Your task to perform on an android device: Open Youtube and go to "Your channel" Image 0: 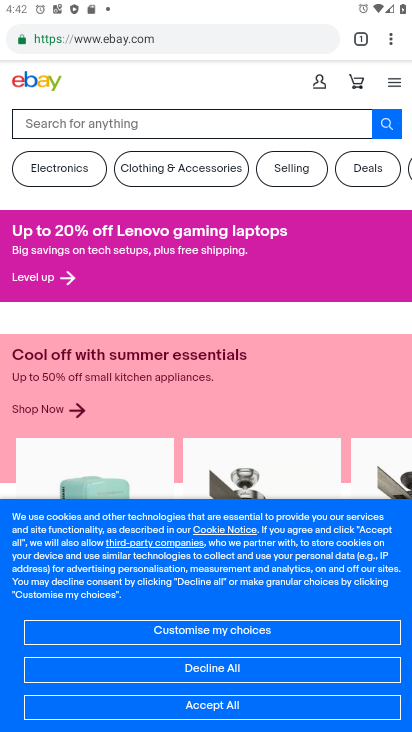
Step 0: press home button
Your task to perform on an android device: Open Youtube and go to "Your channel" Image 1: 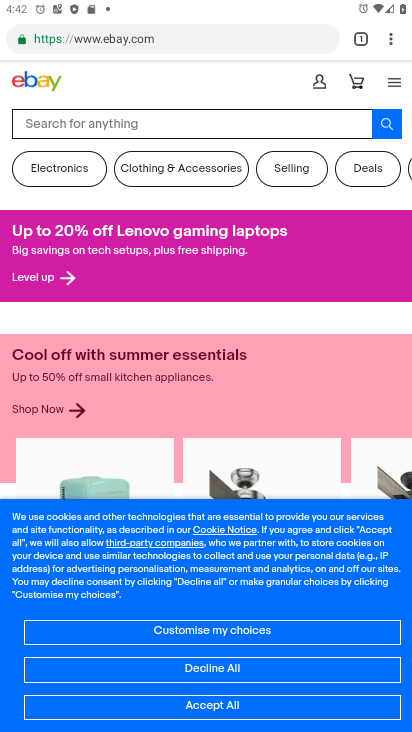
Step 1: drag from (215, 694) to (250, 25)
Your task to perform on an android device: Open Youtube and go to "Your channel" Image 2: 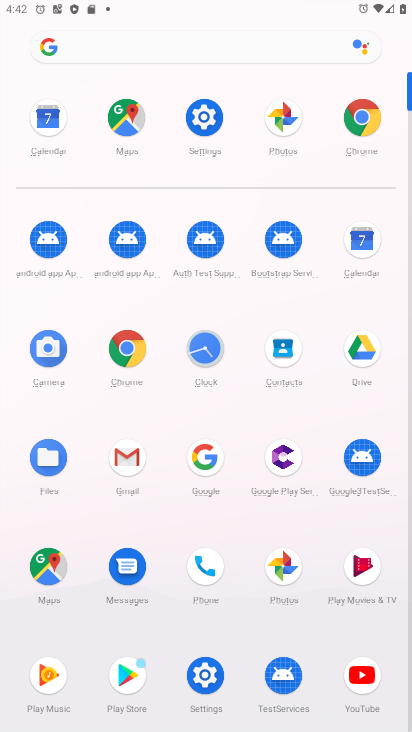
Step 2: click (342, 652)
Your task to perform on an android device: Open Youtube and go to "Your channel" Image 3: 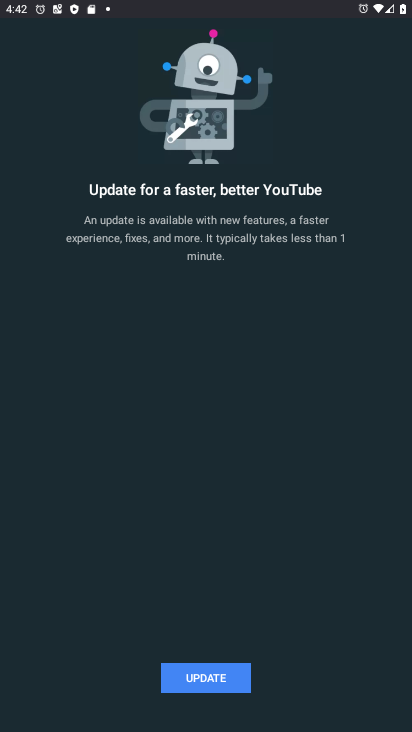
Step 3: click (195, 687)
Your task to perform on an android device: Open Youtube and go to "Your channel" Image 4: 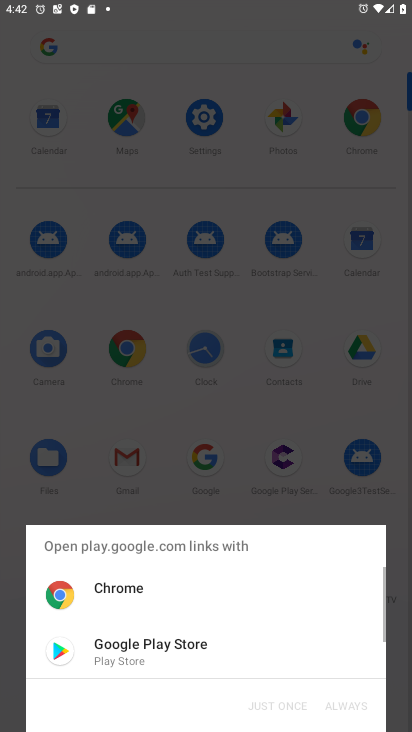
Step 4: click (166, 655)
Your task to perform on an android device: Open Youtube and go to "Your channel" Image 5: 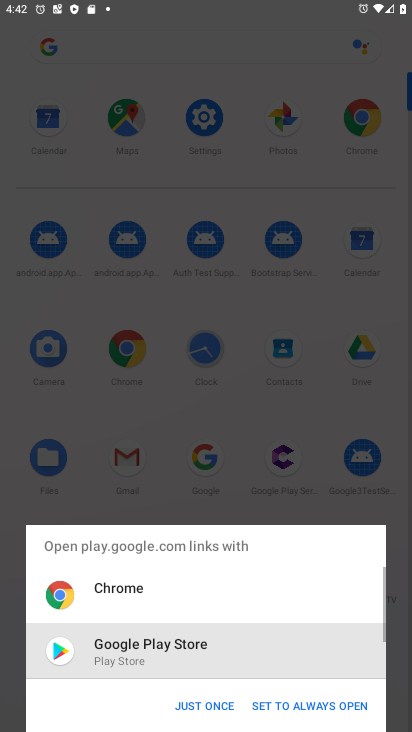
Step 5: click (231, 709)
Your task to perform on an android device: Open Youtube and go to "Your channel" Image 6: 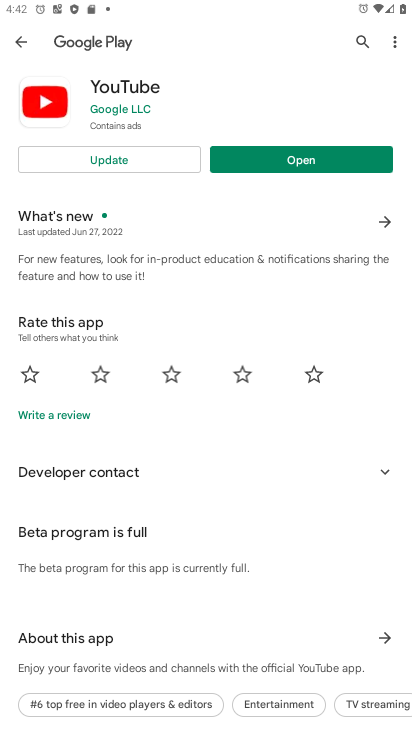
Step 6: click (100, 156)
Your task to perform on an android device: Open Youtube and go to "Your channel" Image 7: 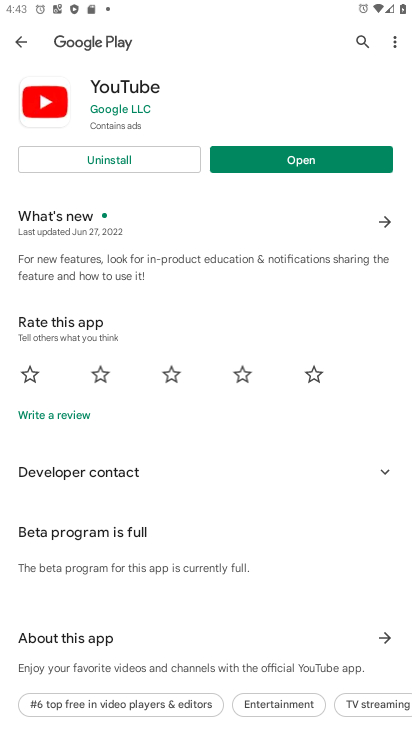
Step 7: click (298, 165)
Your task to perform on an android device: Open Youtube and go to "Your channel" Image 8: 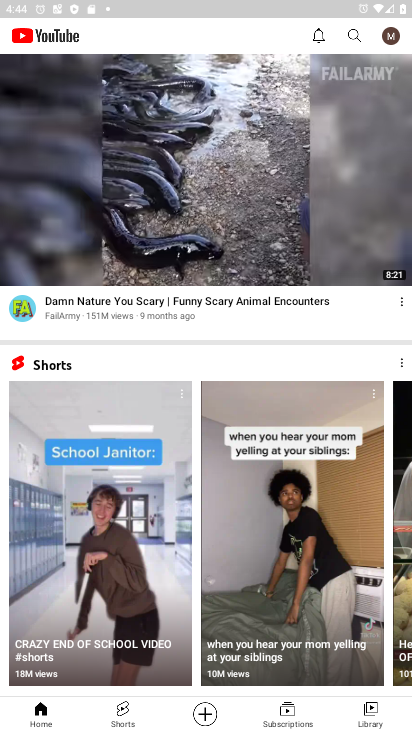
Step 8: click (393, 42)
Your task to perform on an android device: Open Youtube and go to "Your channel" Image 9: 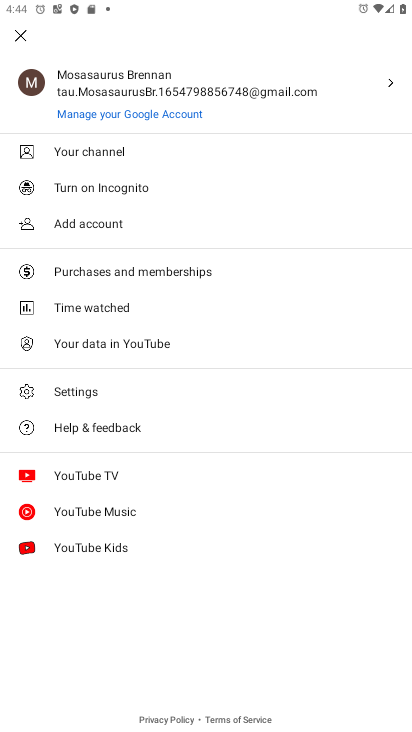
Step 9: click (92, 159)
Your task to perform on an android device: Open Youtube and go to "Your channel" Image 10: 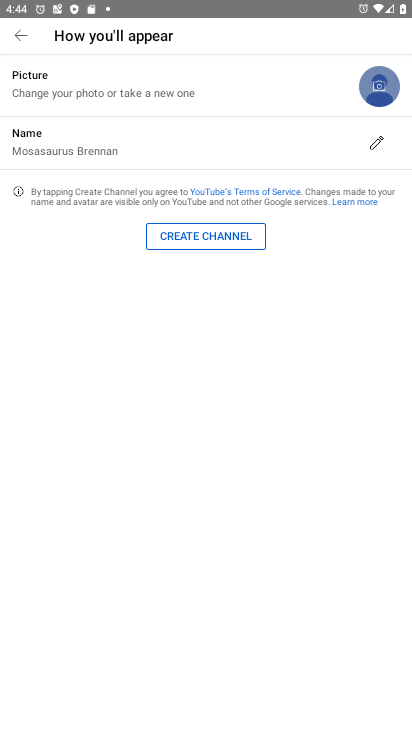
Step 10: task complete